Your task to perform on an android device: change the upload size in google photos Image 0: 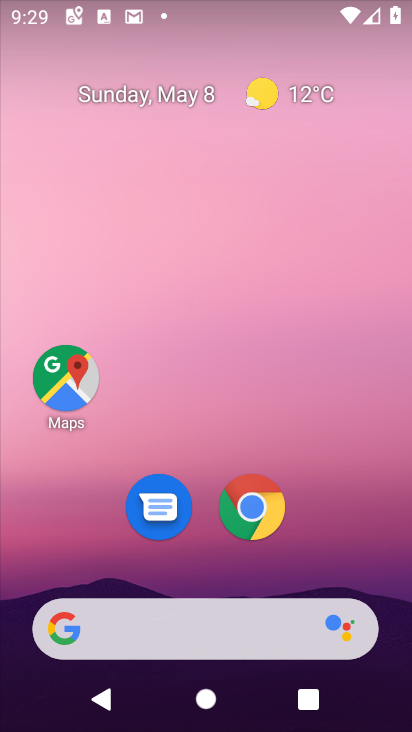
Step 0: drag from (273, 703) to (278, 145)
Your task to perform on an android device: change the upload size in google photos Image 1: 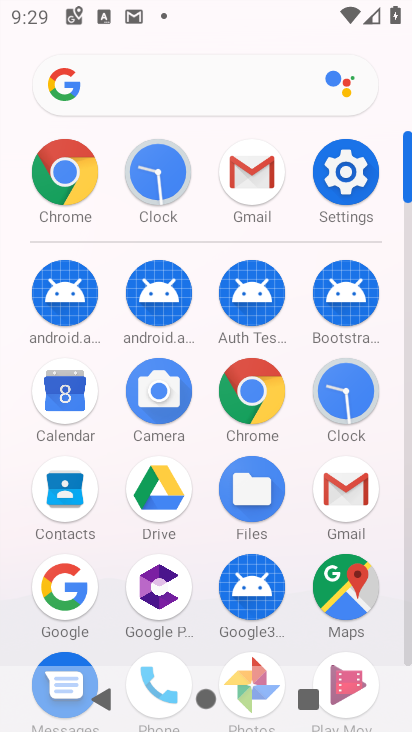
Step 1: click (259, 649)
Your task to perform on an android device: change the upload size in google photos Image 2: 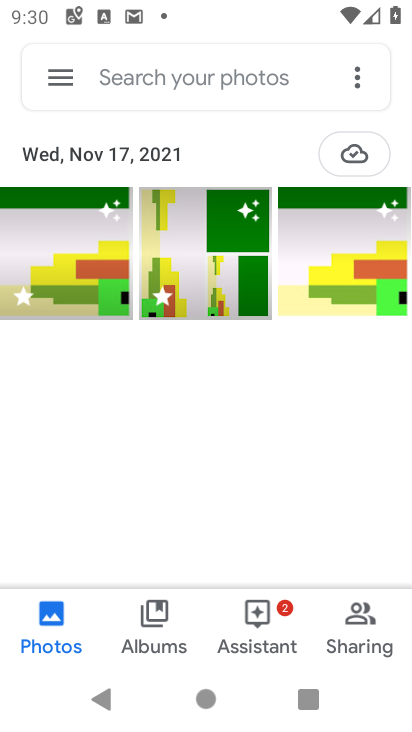
Step 2: click (57, 76)
Your task to perform on an android device: change the upload size in google photos Image 3: 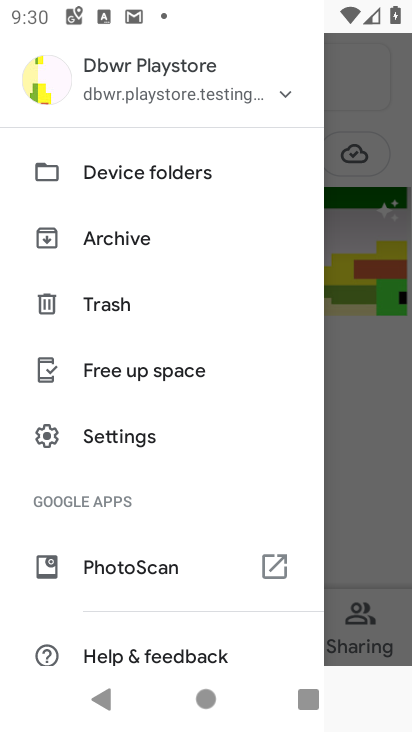
Step 3: click (151, 439)
Your task to perform on an android device: change the upload size in google photos Image 4: 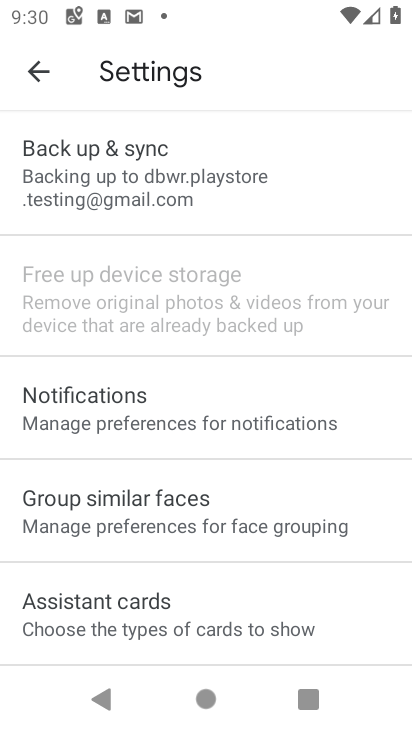
Step 4: click (130, 185)
Your task to perform on an android device: change the upload size in google photos Image 5: 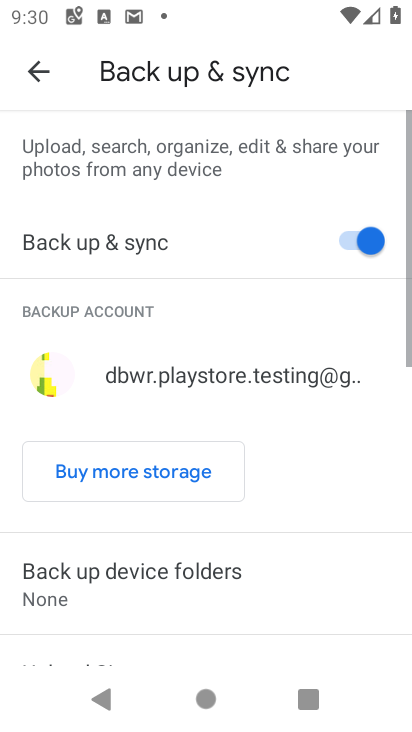
Step 5: drag from (230, 545) to (31, 74)
Your task to perform on an android device: change the upload size in google photos Image 6: 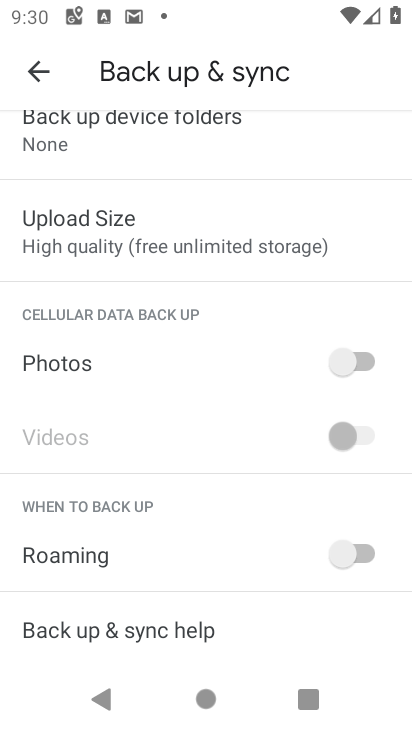
Step 6: click (226, 254)
Your task to perform on an android device: change the upload size in google photos Image 7: 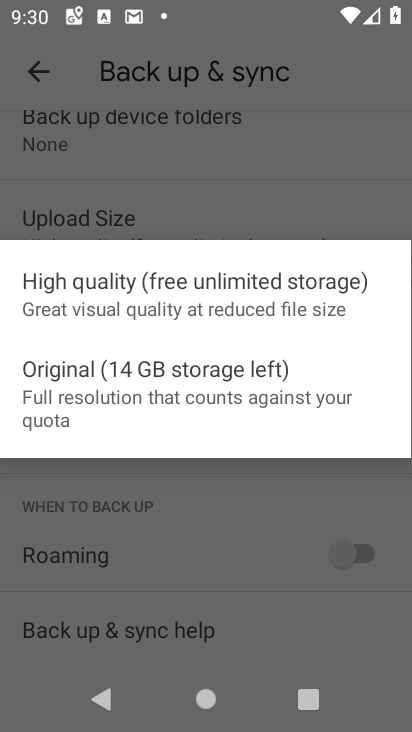
Step 7: click (236, 382)
Your task to perform on an android device: change the upload size in google photos Image 8: 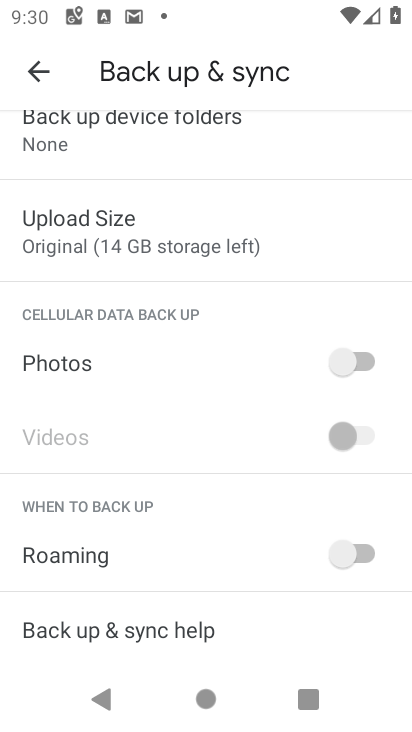
Step 8: task complete